Your task to perform on an android device: Is it going to rain today? Image 0: 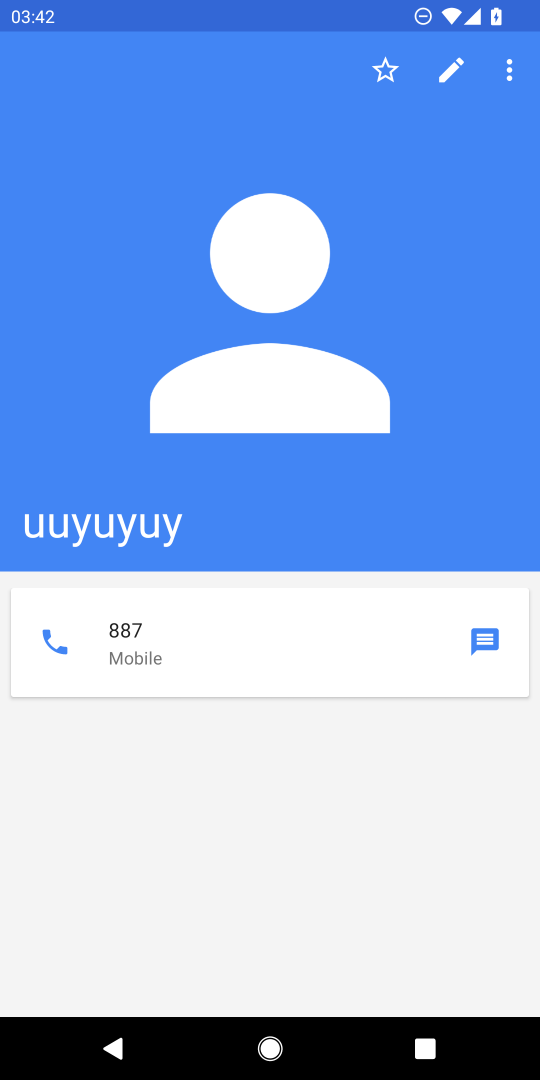
Step 0: press home button
Your task to perform on an android device: Is it going to rain today? Image 1: 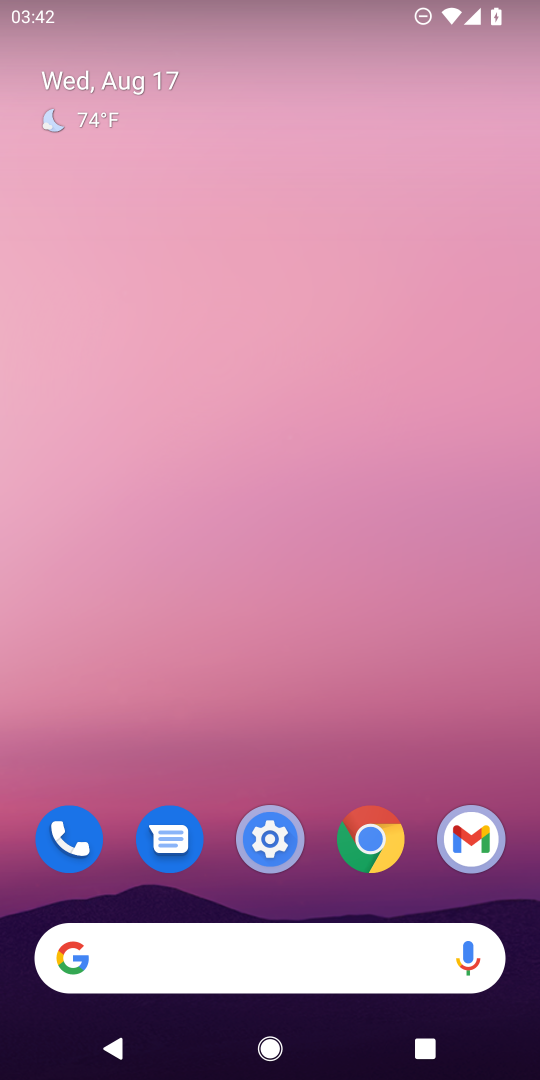
Step 1: drag from (298, 903) to (298, 11)
Your task to perform on an android device: Is it going to rain today? Image 2: 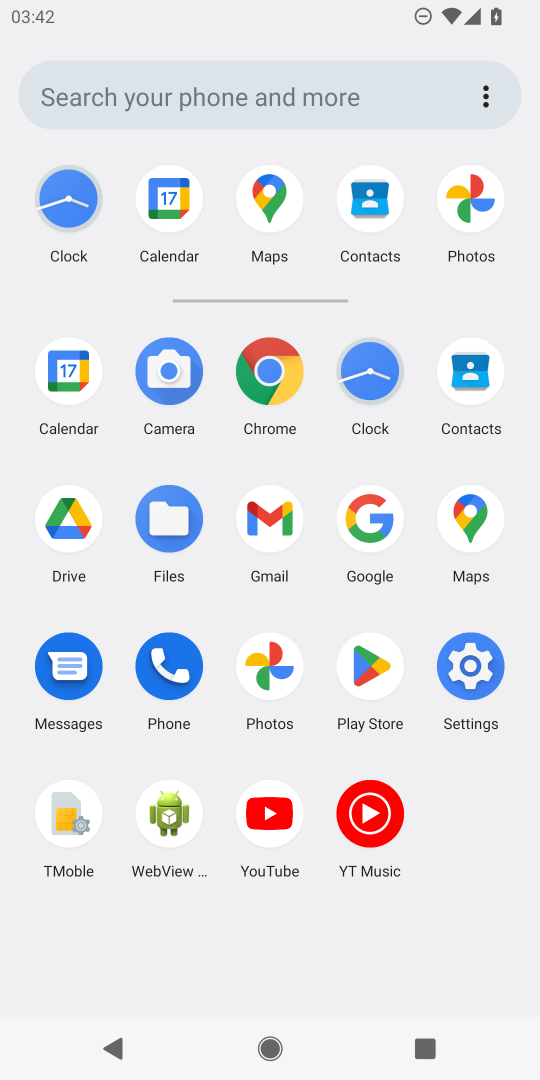
Step 2: click (381, 507)
Your task to perform on an android device: Is it going to rain today? Image 3: 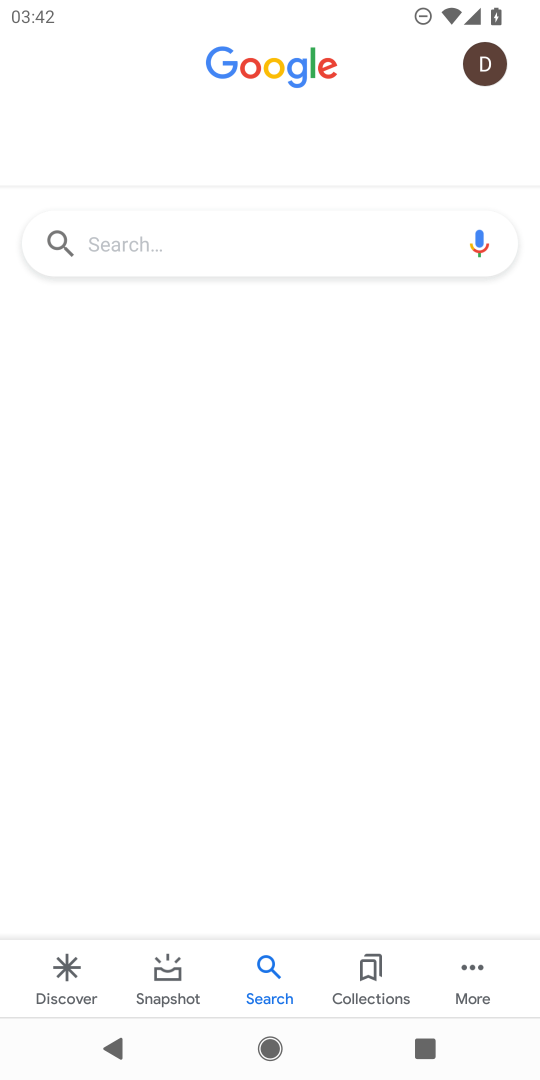
Step 3: click (220, 235)
Your task to perform on an android device: Is it going to rain today? Image 4: 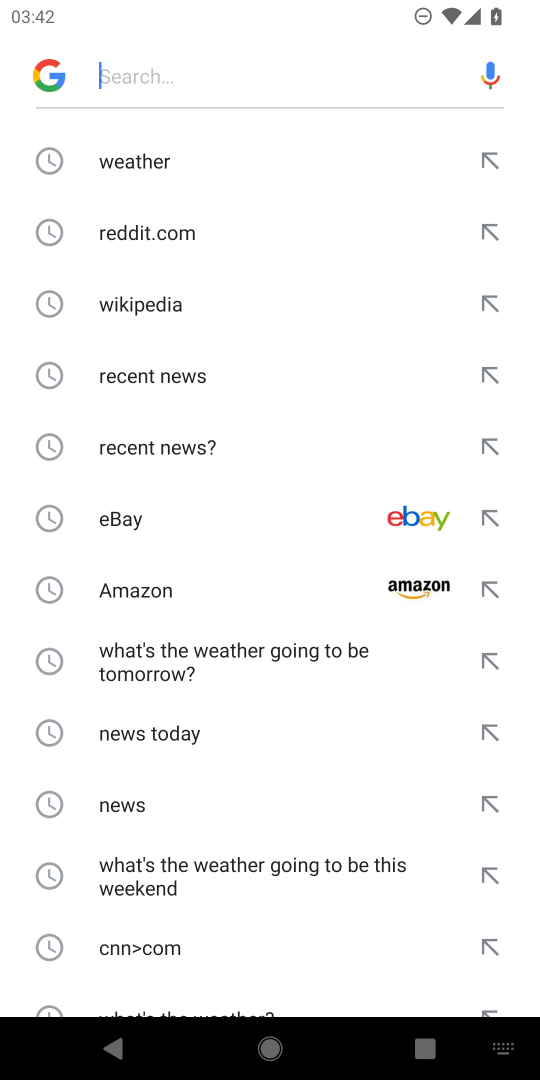
Step 4: click (138, 157)
Your task to perform on an android device: Is it going to rain today? Image 5: 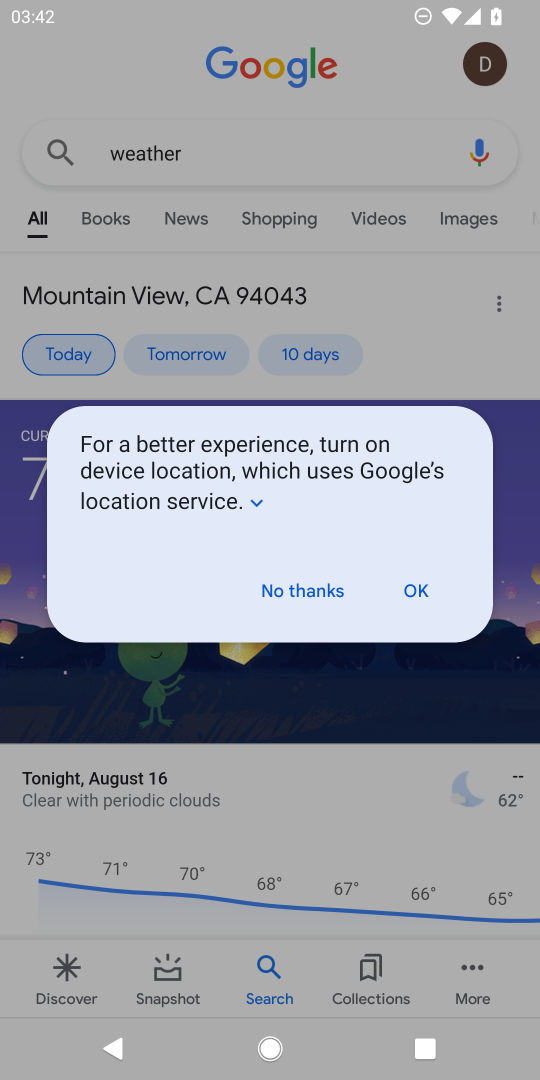
Step 5: click (297, 584)
Your task to perform on an android device: Is it going to rain today? Image 6: 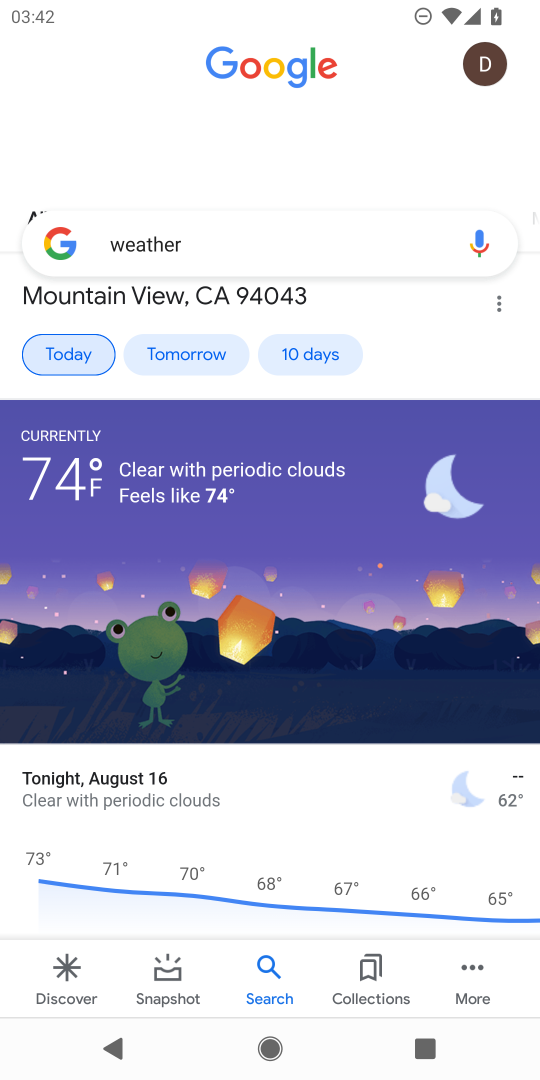
Step 6: click (64, 357)
Your task to perform on an android device: Is it going to rain today? Image 7: 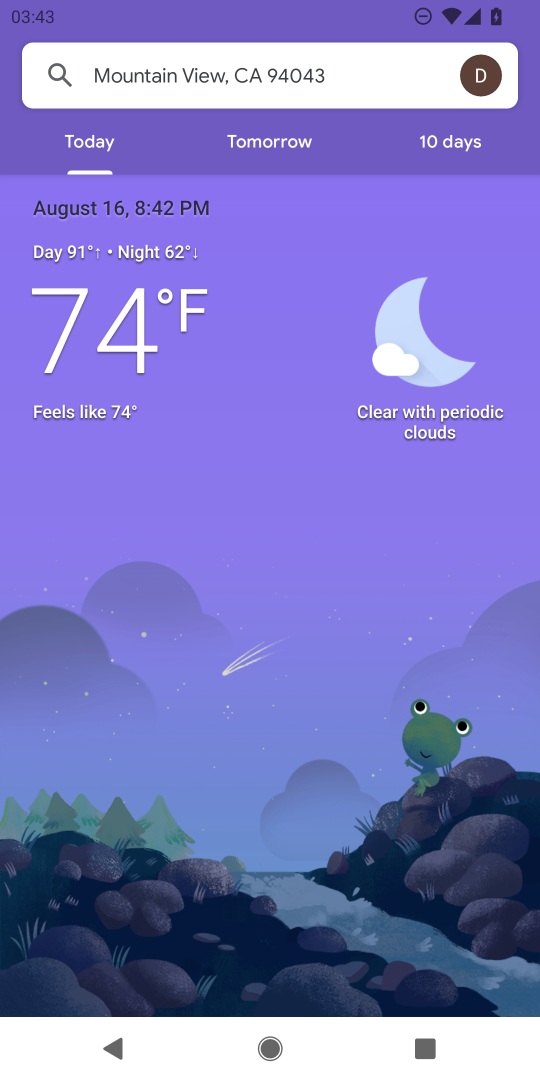
Step 7: task complete